Your task to perform on an android device: check storage Image 0: 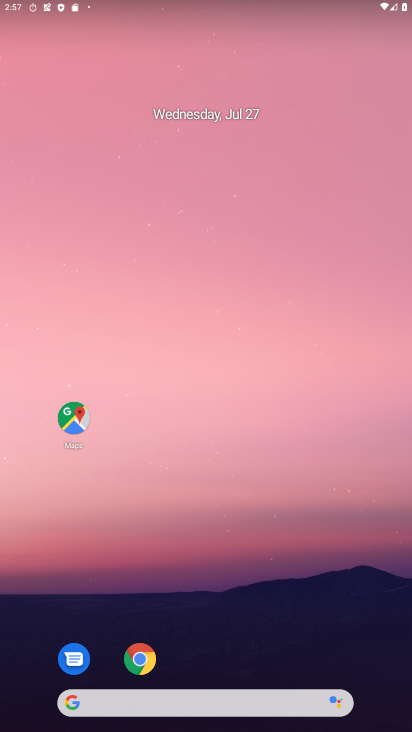
Step 0: drag from (222, 730) to (209, 52)
Your task to perform on an android device: check storage Image 1: 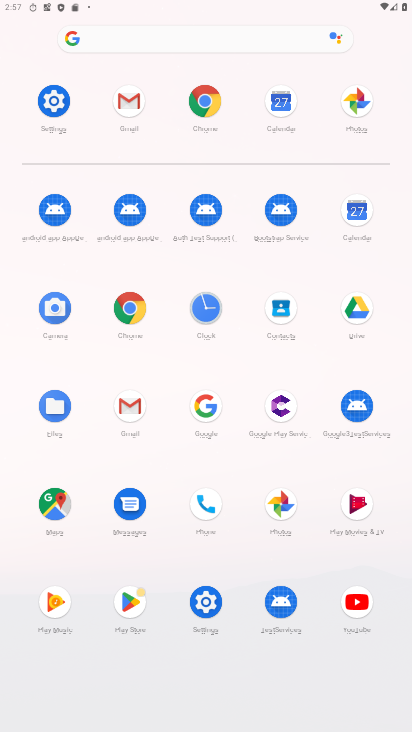
Step 1: click (48, 100)
Your task to perform on an android device: check storage Image 2: 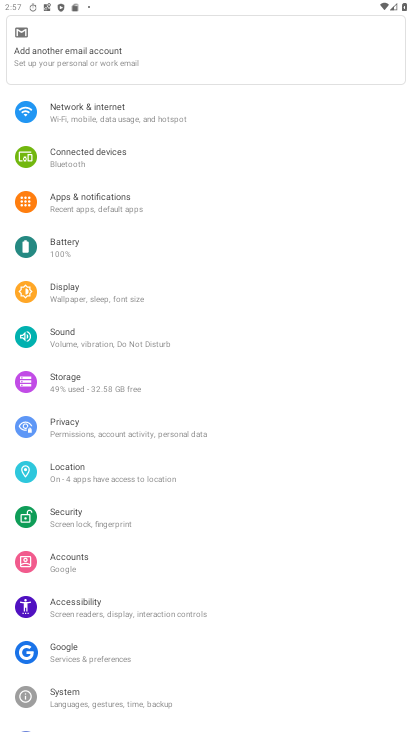
Step 2: click (57, 377)
Your task to perform on an android device: check storage Image 3: 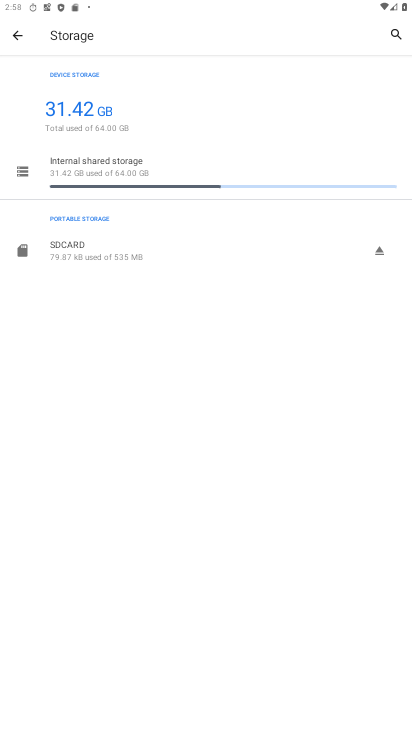
Step 3: task complete